Your task to perform on an android device: change alarm snooze length Image 0: 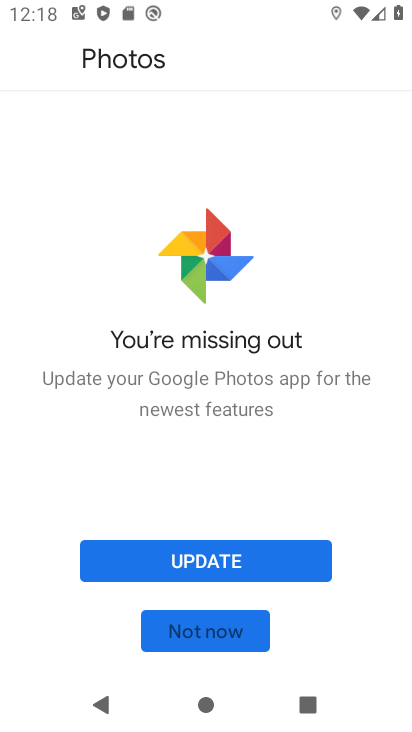
Step 0: press home button
Your task to perform on an android device: change alarm snooze length Image 1: 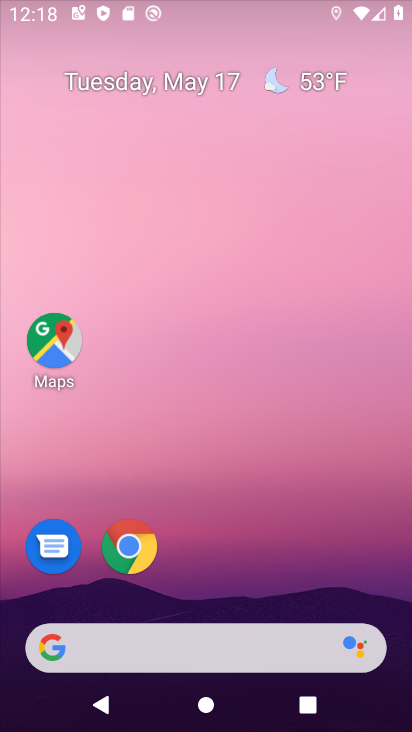
Step 1: drag from (198, 575) to (343, 70)
Your task to perform on an android device: change alarm snooze length Image 2: 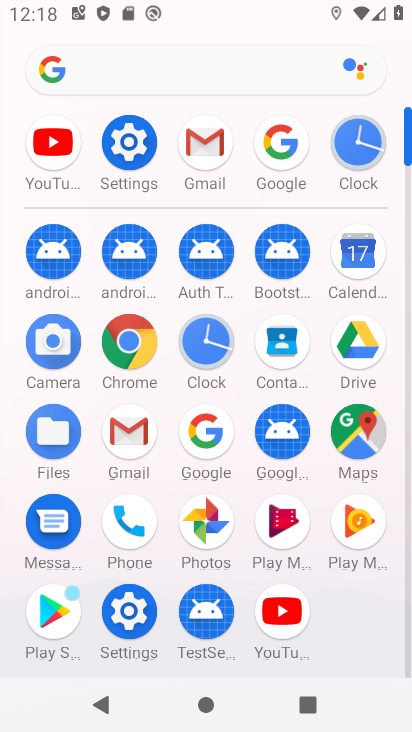
Step 2: click (202, 343)
Your task to perform on an android device: change alarm snooze length Image 3: 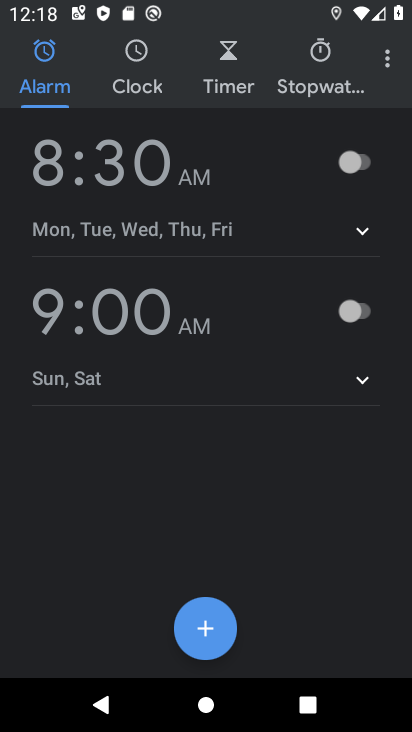
Step 3: click (379, 65)
Your task to perform on an android device: change alarm snooze length Image 4: 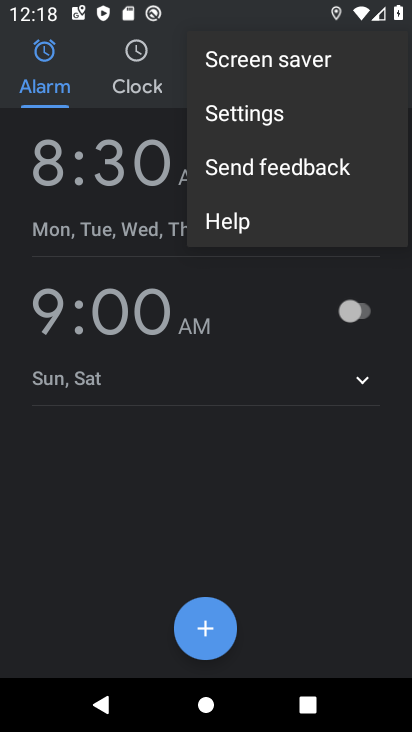
Step 4: click (263, 116)
Your task to perform on an android device: change alarm snooze length Image 5: 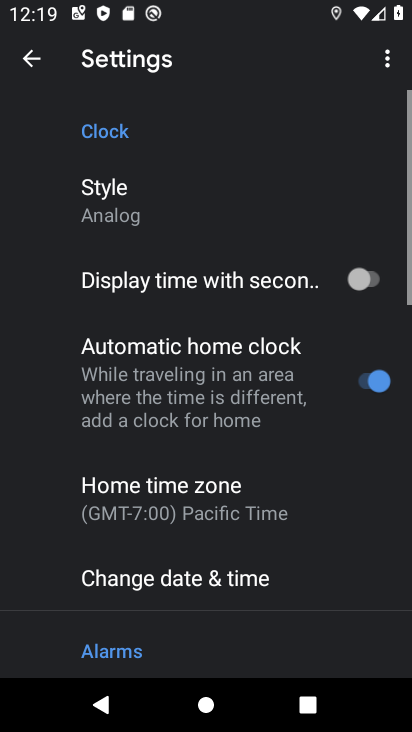
Step 5: drag from (184, 561) to (202, 167)
Your task to perform on an android device: change alarm snooze length Image 6: 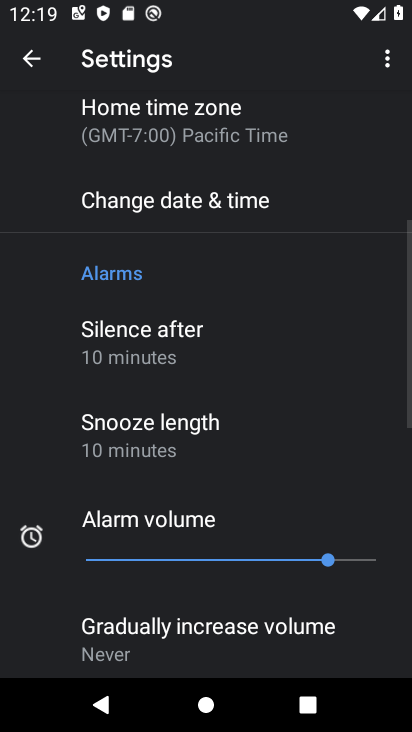
Step 6: drag from (212, 569) to (198, 230)
Your task to perform on an android device: change alarm snooze length Image 7: 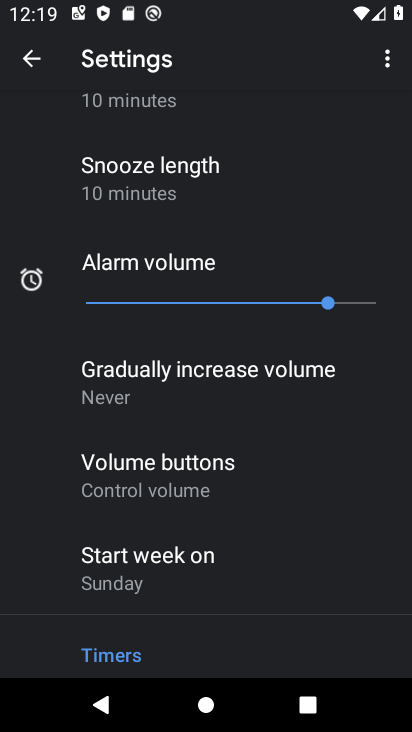
Step 7: drag from (241, 595) to (279, 635)
Your task to perform on an android device: change alarm snooze length Image 8: 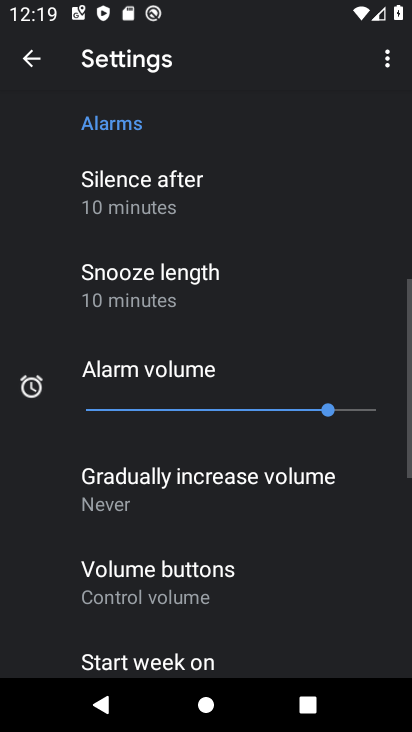
Step 8: click (167, 313)
Your task to perform on an android device: change alarm snooze length Image 9: 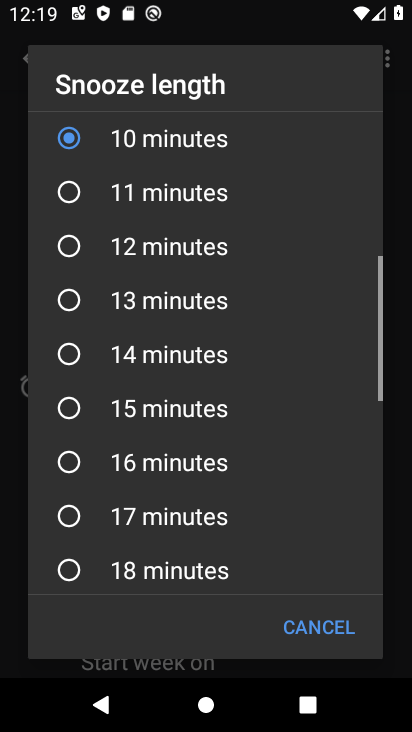
Step 9: click (70, 288)
Your task to perform on an android device: change alarm snooze length Image 10: 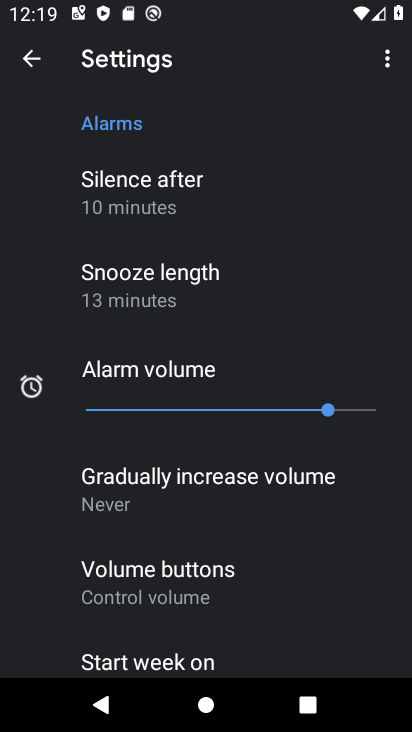
Step 10: task complete